Your task to perform on an android device: change the clock style Image 0: 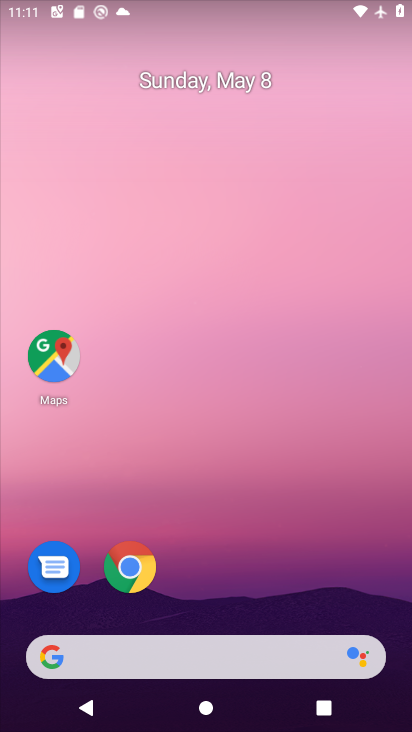
Step 0: drag from (245, 585) to (312, 5)
Your task to perform on an android device: change the clock style Image 1: 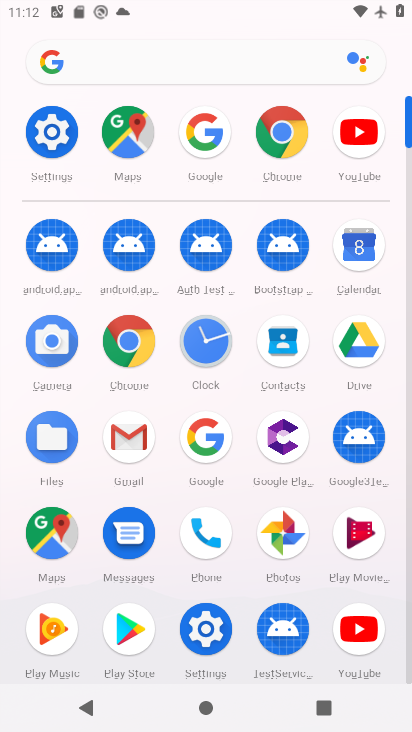
Step 1: click (202, 356)
Your task to perform on an android device: change the clock style Image 2: 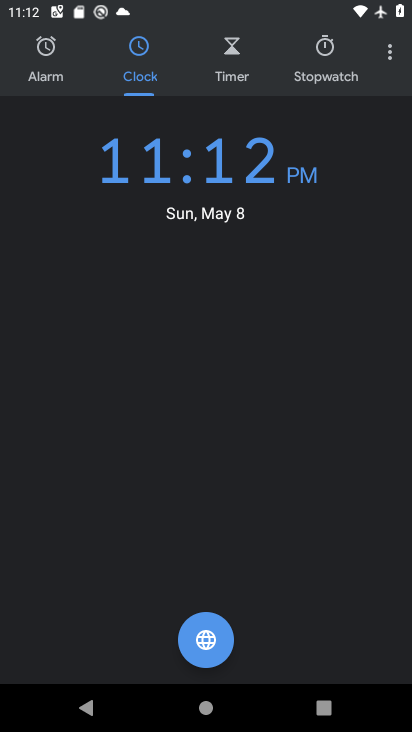
Step 2: click (389, 53)
Your task to perform on an android device: change the clock style Image 3: 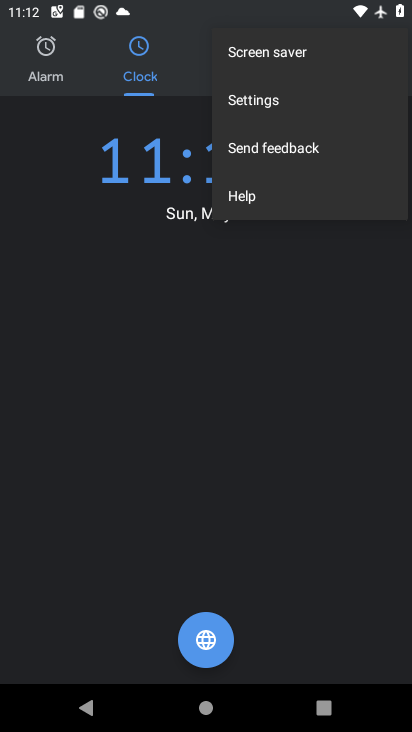
Step 3: click (298, 100)
Your task to perform on an android device: change the clock style Image 4: 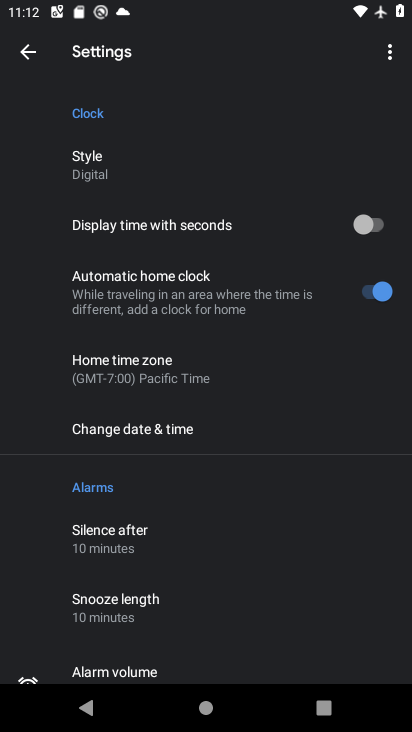
Step 4: click (102, 171)
Your task to perform on an android device: change the clock style Image 5: 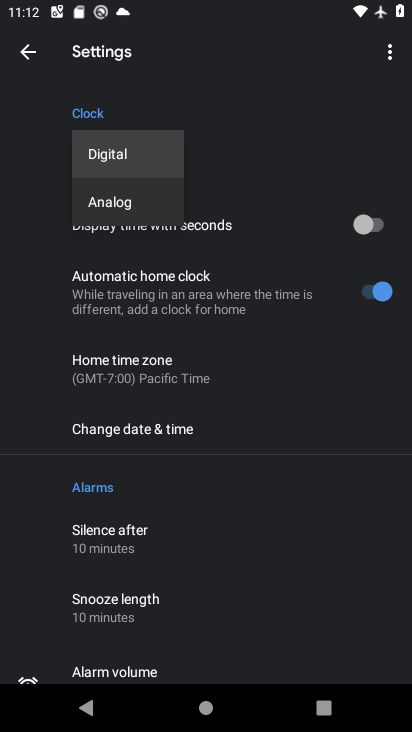
Step 5: click (127, 207)
Your task to perform on an android device: change the clock style Image 6: 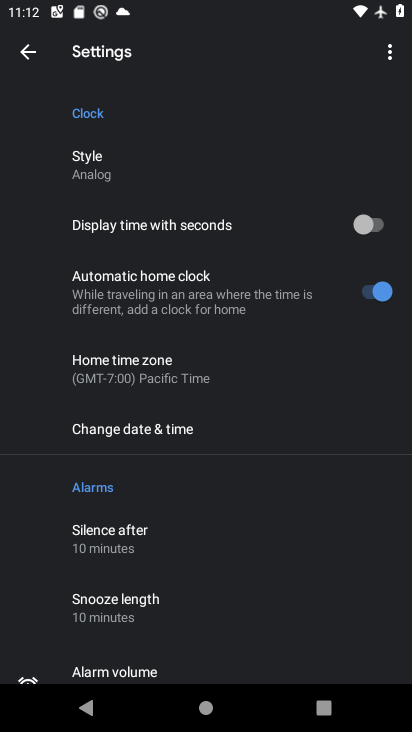
Step 6: task complete